Your task to perform on an android device: change the clock display to analog Image 0: 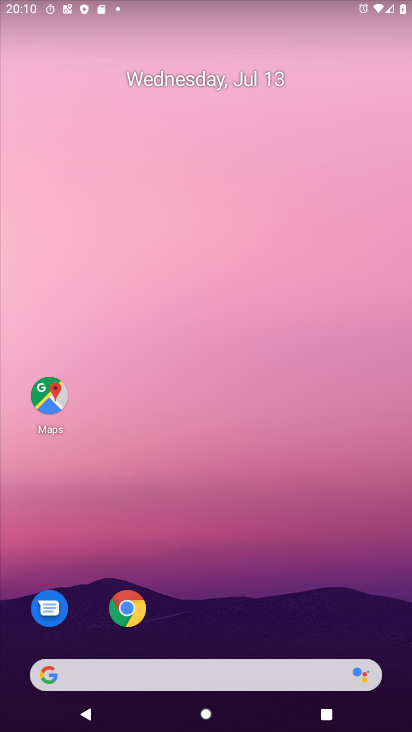
Step 0: drag from (191, 632) to (166, 116)
Your task to perform on an android device: change the clock display to analog Image 1: 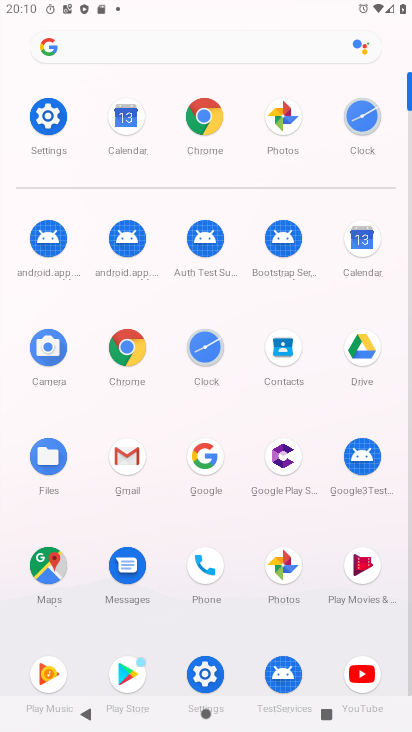
Step 1: click (201, 352)
Your task to perform on an android device: change the clock display to analog Image 2: 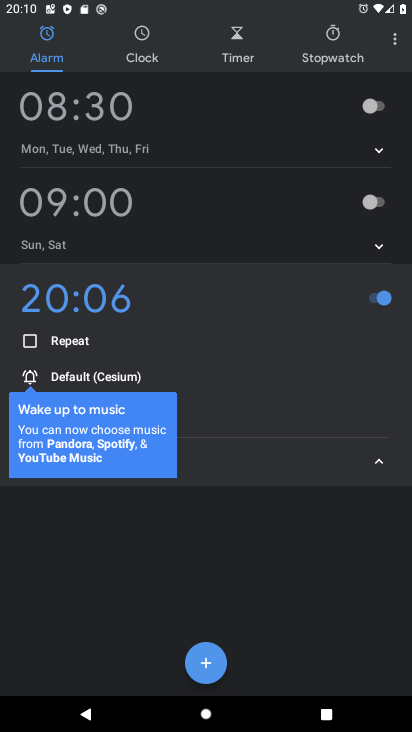
Step 2: drag from (394, 38) to (334, 145)
Your task to perform on an android device: change the clock display to analog Image 3: 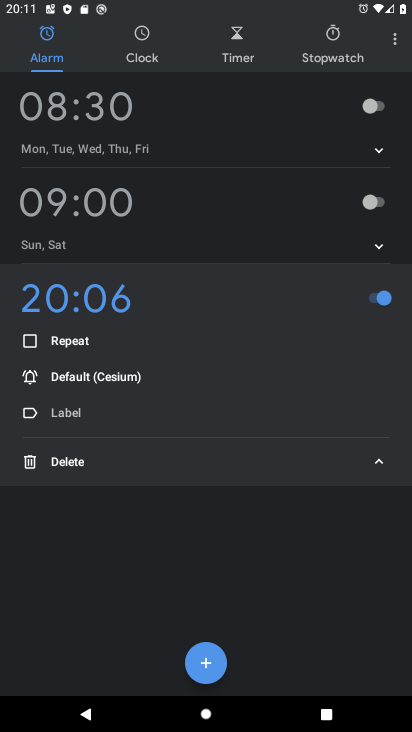
Step 3: click (319, 78)
Your task to perform on an android device: change the clock display to analog Image 4: 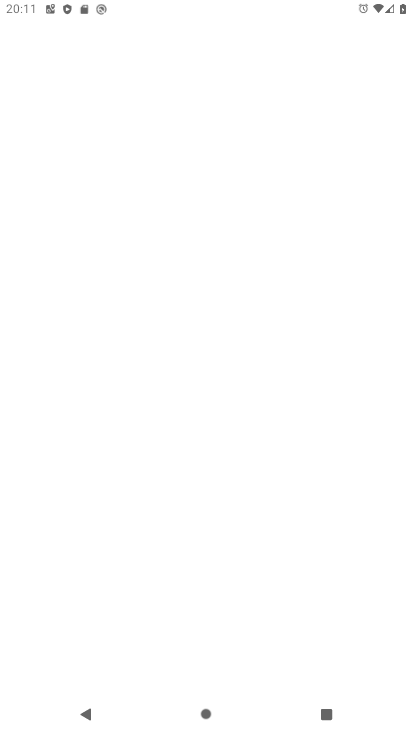
Step 4: click (396, 41)
Your task to perform on an android device: change the clock display to analog Image 5: 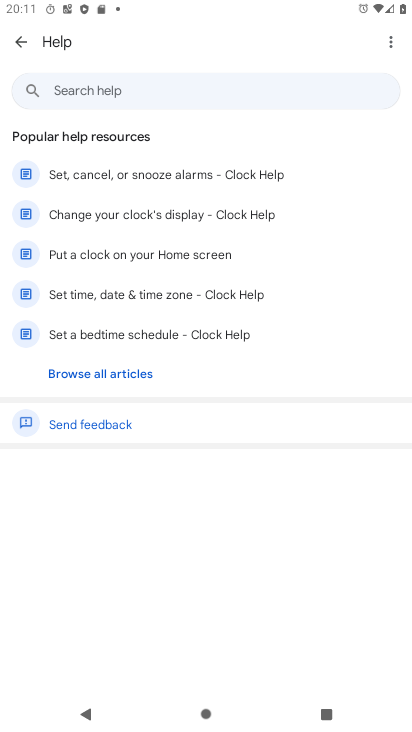
Step 5: press back button
Your task to perform on an android device: change the clock display to analog Image 6: 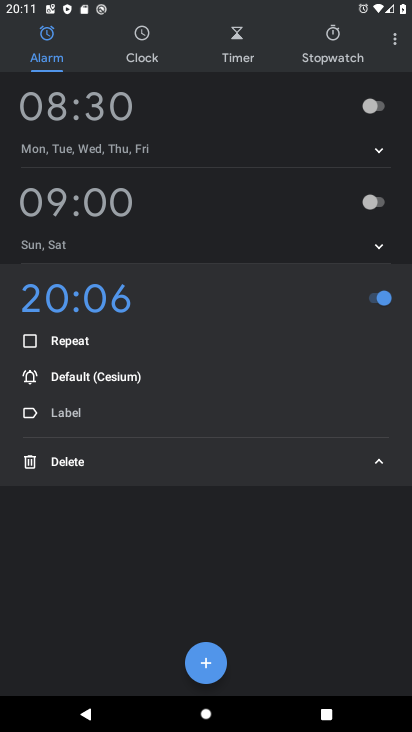
Step 6: drag from (395, 38) to (318, 85)
Your task to perform on an android device: change the clock display to analog Image 7: 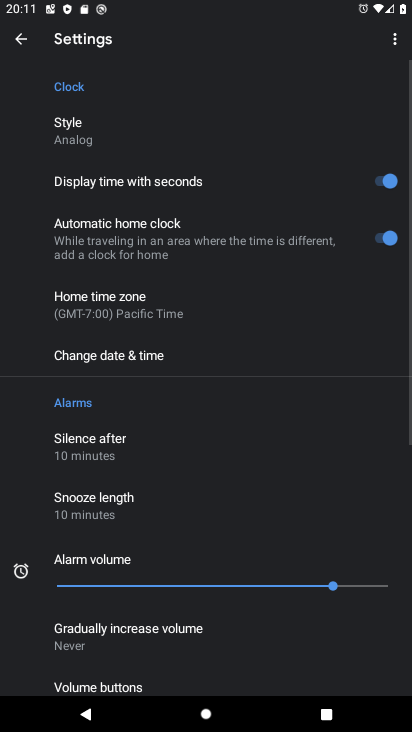
Step 7: click (117, 132)
Your task to perform on an android device: change the clock display to analog Image 8: 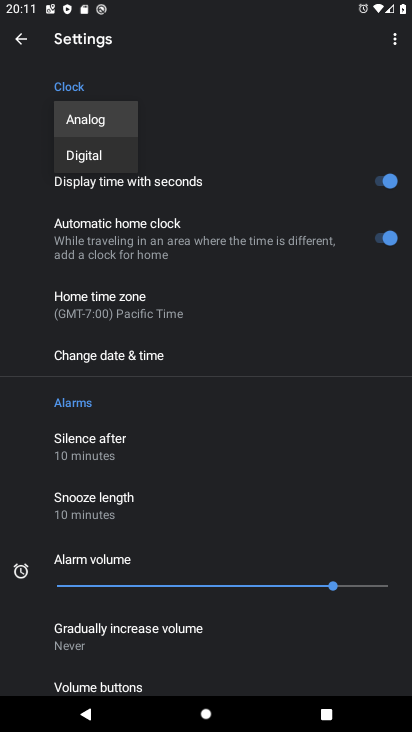
Step 8: click (91, 158)
Your task to perform on an android device: change the clock display to analog Image 9: 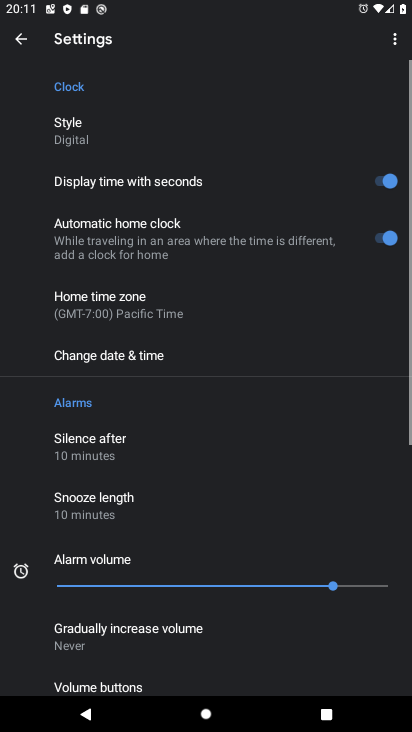
Step 9: click (92, 139)
Your task to perform on an android device: change the clock display to analog Image 10: 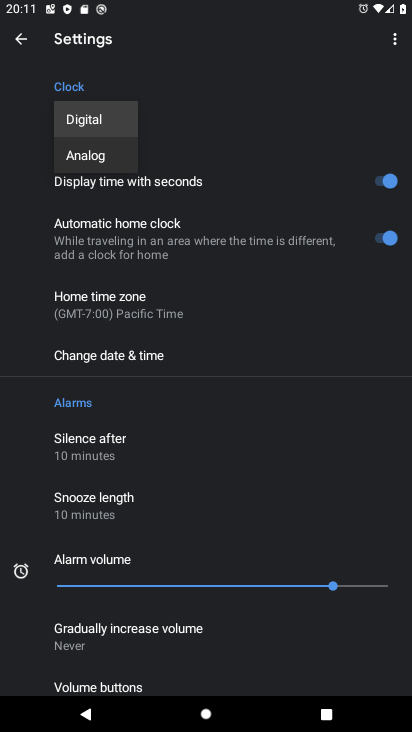
Step 10: click (89, 126)
Your task to perform on an android device: change the clock display to analog Image 11: 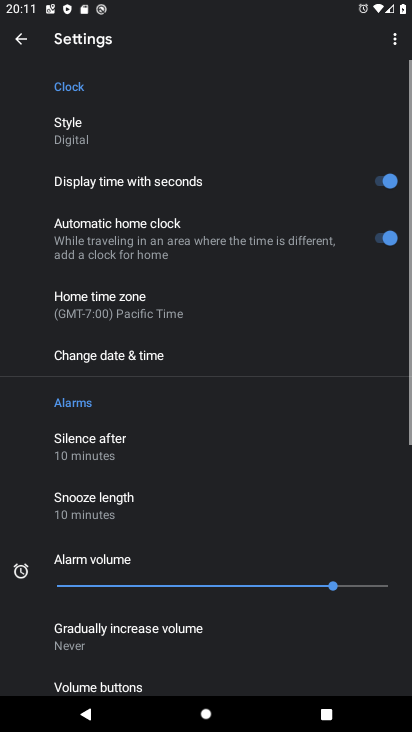
Step 11: click (89, 124)
Your task to perform on an android device: change the clock display to analog Image 12: 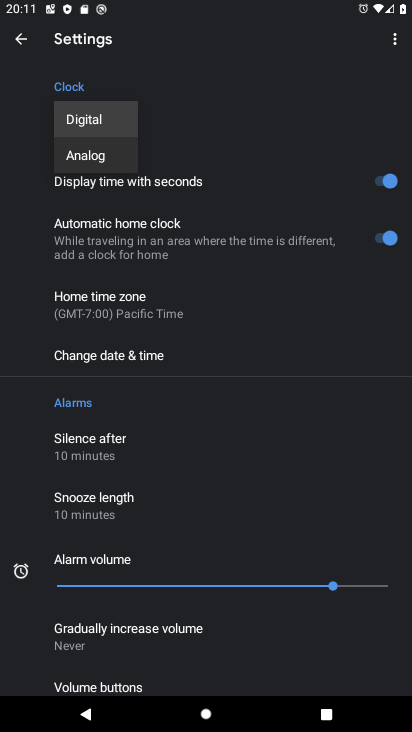
Step 12: click (85, 152)
Your task to perform on an android device: change the clock display to analog Image 13: 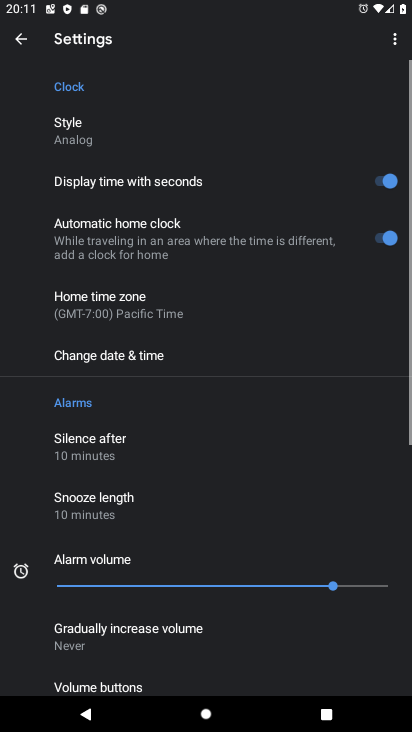
Step 13: task complete